Your task to perform on an android device: When is my next appointment? Image 0: 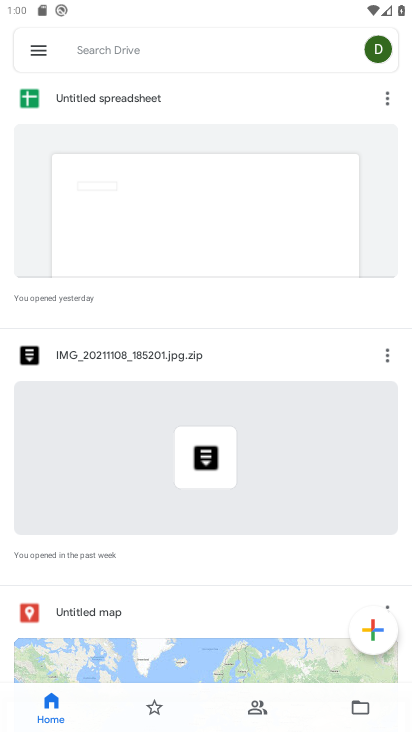
Step 0: press home button
Your task to perform on an android device: When is my next appointment? Image 1: 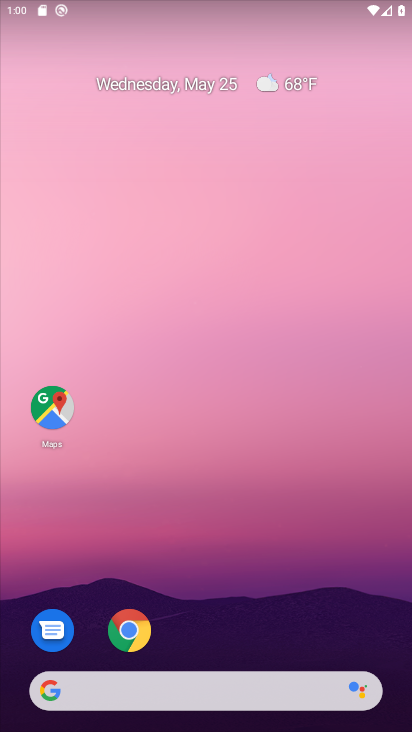
Step 1: drag from (227, 644) to (227, 189)
Your task to perform on an android device: When is my next appointment? Image 2: 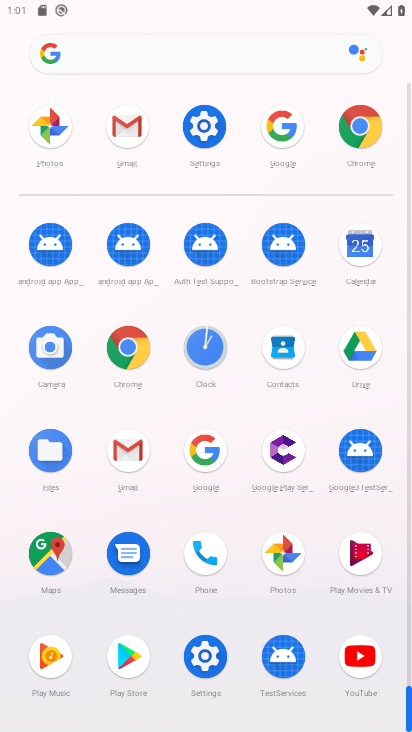
Step 2: click (353, 240)
Your task to perform on an android device: When is my next appointment? Image 3: 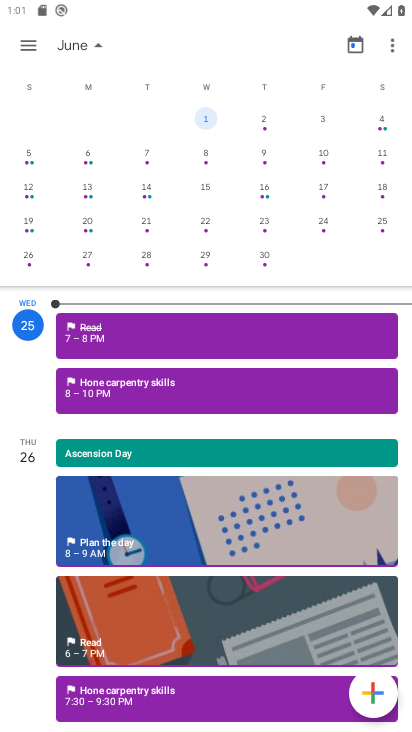
Step 3: task complete